Your task to perform on an android device: turn off data saver in the chrome app Image 0: 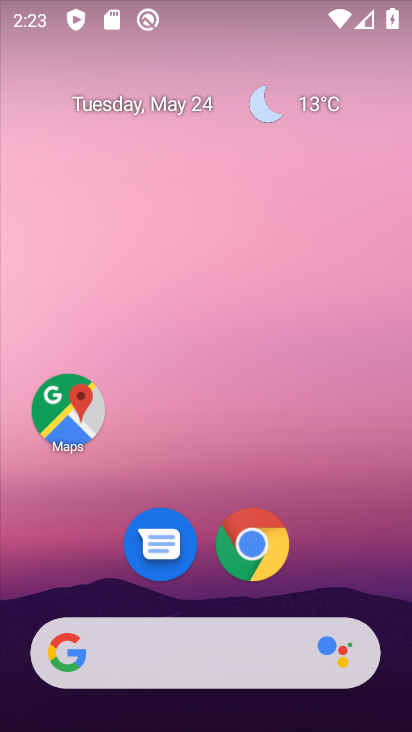
Step 0: drag from (346, 356) to (308, 2)
Your task to perform on an android device: turn off data saver in the chrome app Image 1: 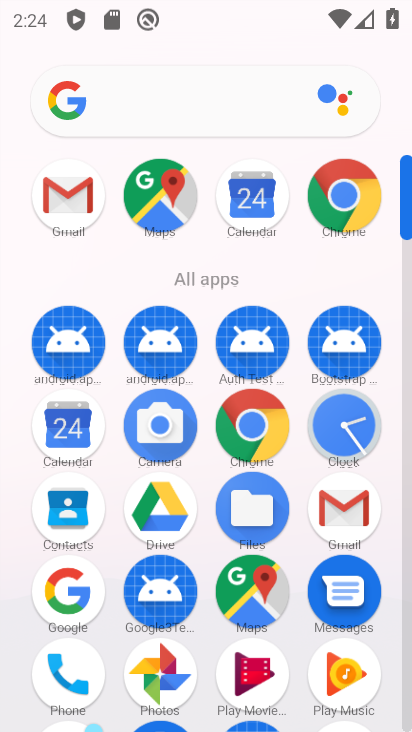
Step 1: click (360, 207)
Your task to perform on an android device: turn off data saver in the chrome app Image 2: 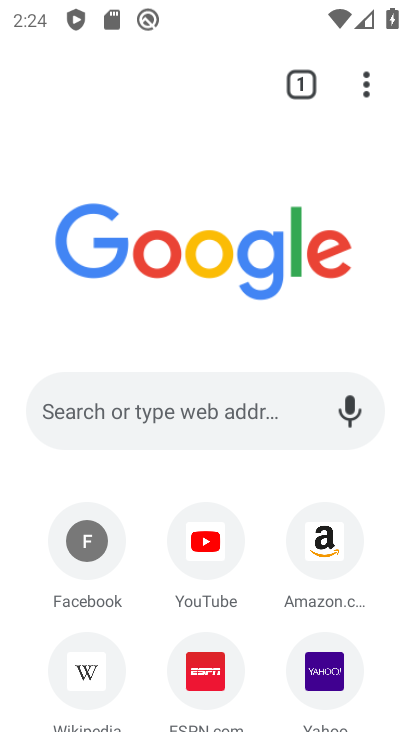
Step 2: drag from (377, 87) to (117, 598)
Your task to perform on an android device: turn off data saver in the chrome app Image 3: 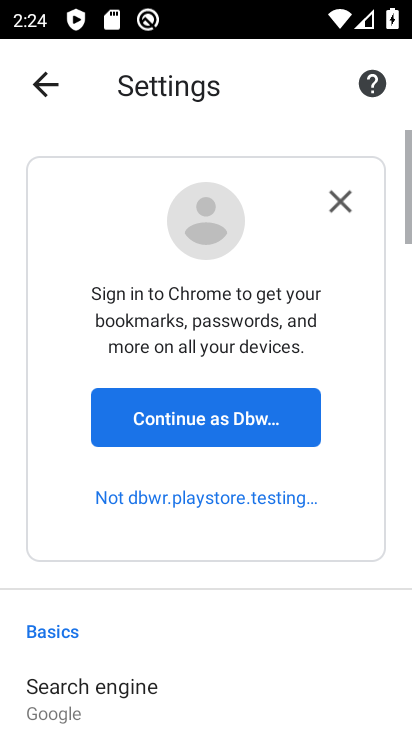
Step 3: drag from (130, 592) to (160, 144)
Your task to perform on an android device: turn off data saver in the chrome app Image 4: 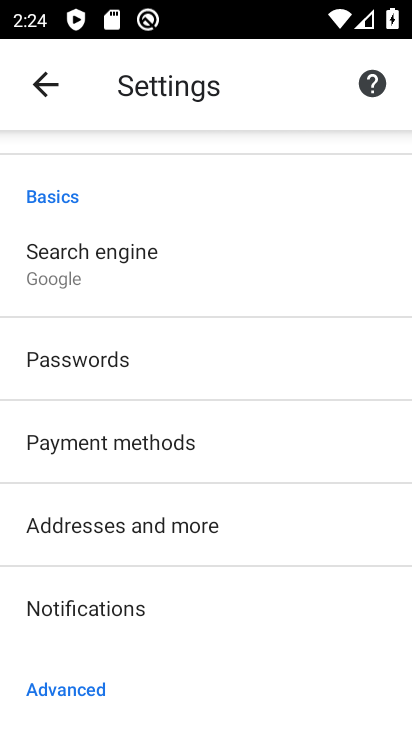
Step 4: drag from (126, 652) to (163, 218)
Your task to perform on an android device: turn off data saver in the chrome app Image 5: 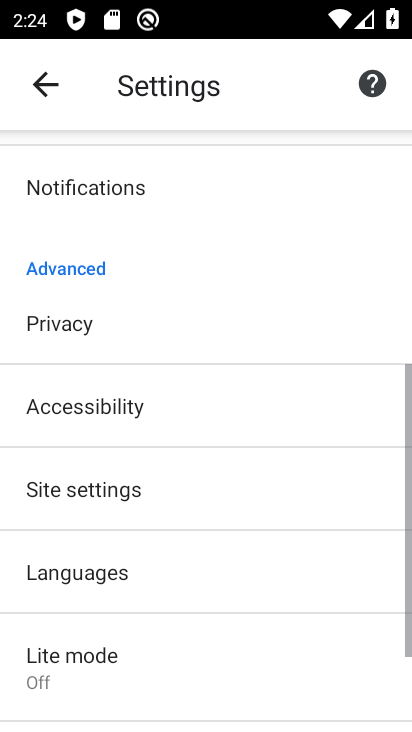
Step 5: drag from (128, 611) to (149, 192)
Your task to perform on an android device: turn off data saver in the chrome app Image 6: 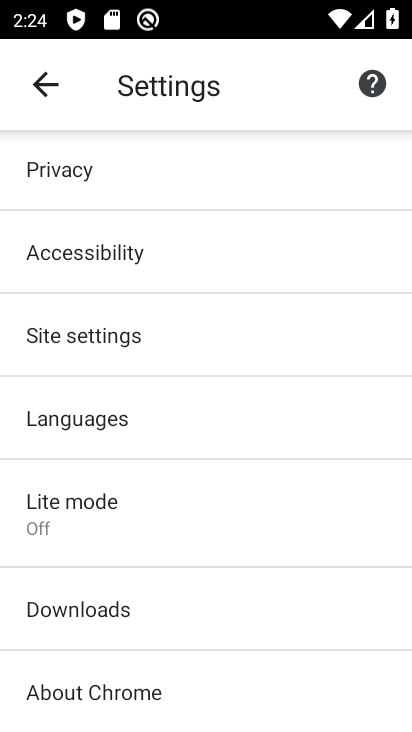
Step 6: click (74, 523)
Your task to perform on an android device: turn off data saver in the chrome app Image 7: 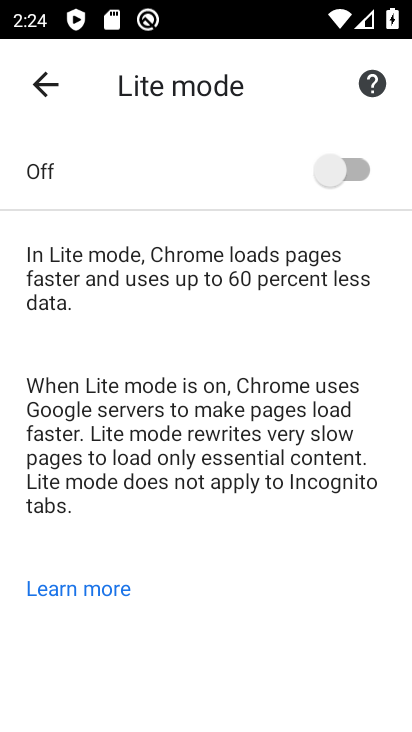
Step 7: task complete